Your task to perform on an android device: turn on the 24-hour format for clock Image 0: 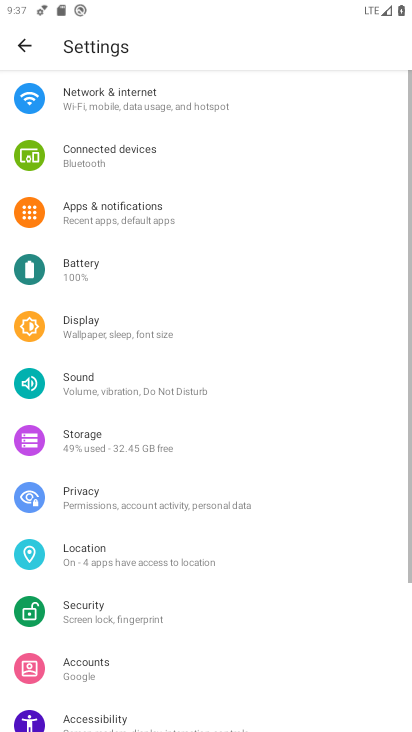
Step 0: press home button
Your task to perform on an android device: turn on the 24-hour format for clock Image 1: 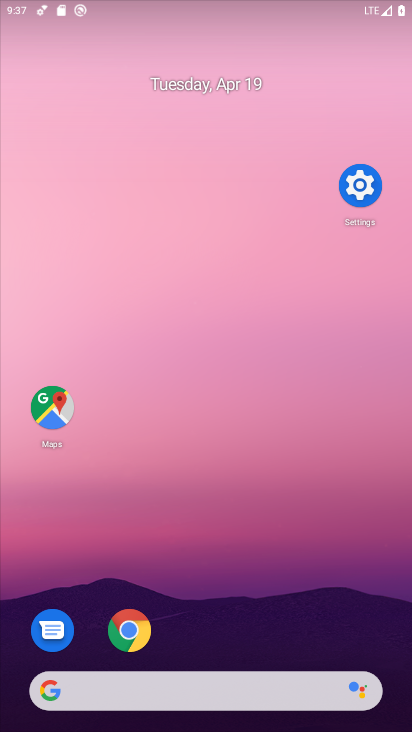
Step 1: drag from (253, 673) to (270, 66)
Your task to perform on an android device: turn on the 24-hour format for clock Image 2: 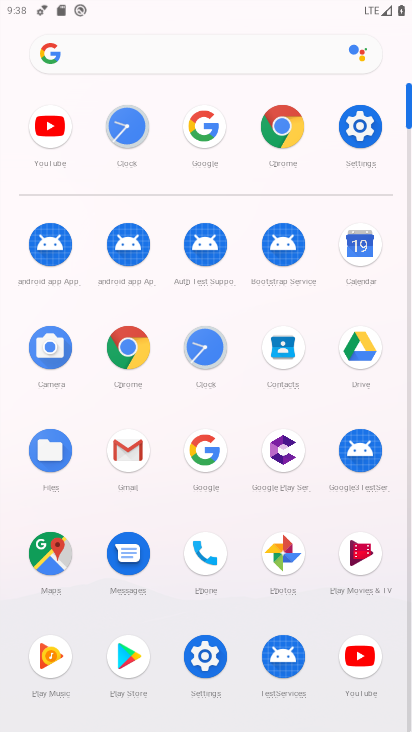
Step 2: click (364, 133)
Your task to perform on an android device: turn on the 24-hour format for clock Image 3: 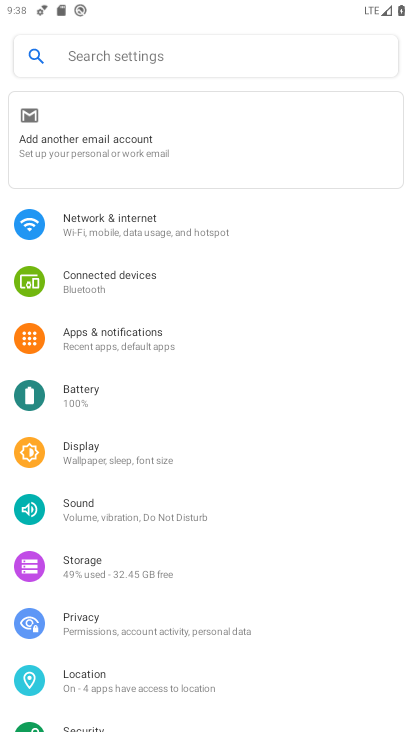
Step 3: press home button
Your task to perform on an android device: turn on the 24-hour format for clock Image 4: 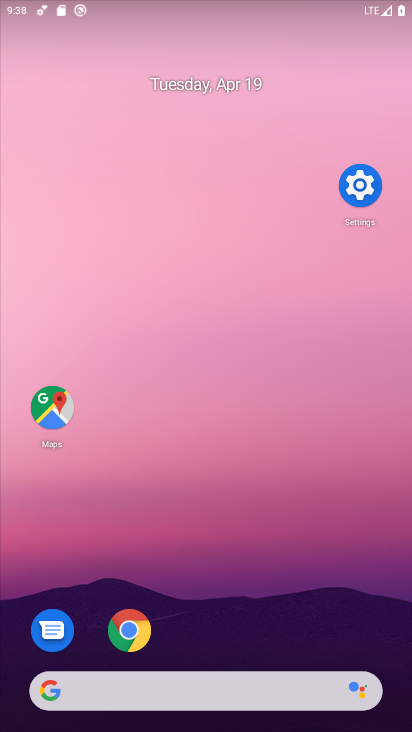
Step 4: drag from (217, 636) to (281, 80)
Your task to perform on an android device: turn on the 24-hour format for clock Image 5: 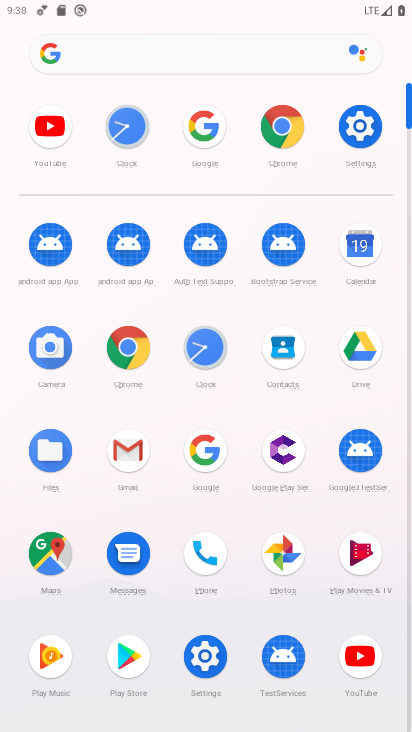
Step 5: click (209, 356)
Your task to perform on an android device: turn on the 24-hour format for clock Image 6: 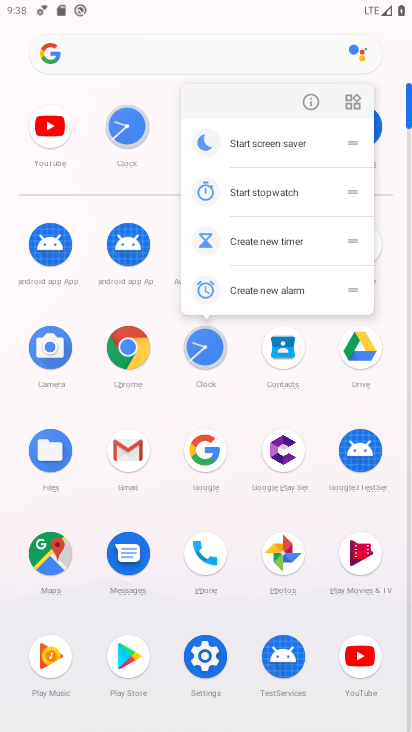
Step 6: click (209, 356)
Your task to perform on an android device: turn on the 24-hour format for clock Image 7: 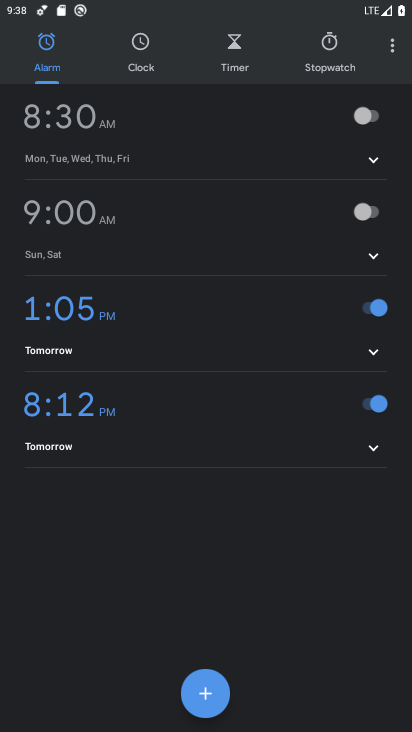
Step 7: click (397, 47)
Your task to perform on an android device: turn on the 24-hour format for clock Image 8: 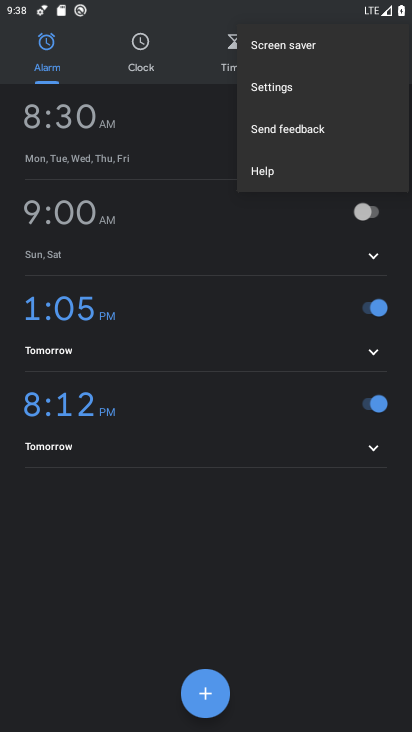
Step 8: click (287, 87)
Your task to perform on an android device: turn on the 24-hour format for clock Image 9: 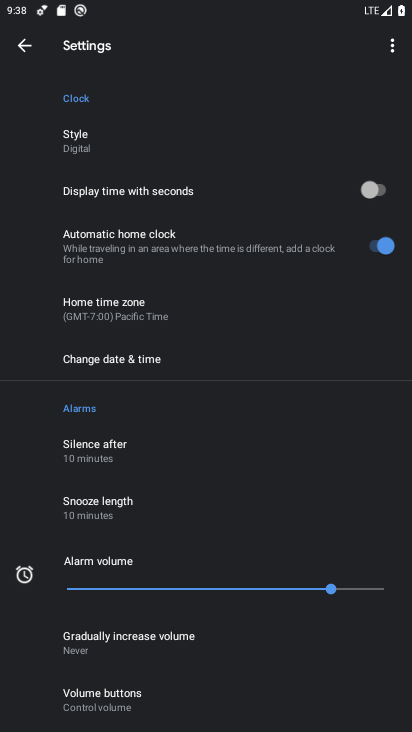
Step 9: click (160, 355)
Your task to perform on an android device: turn on the 24-hour format for clock Image 10: 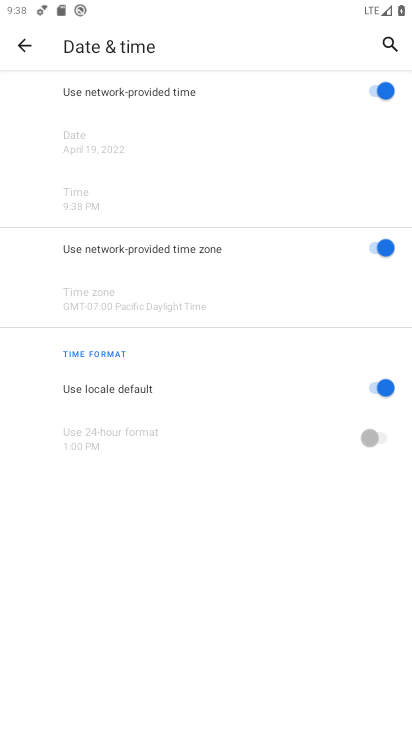
Step 10: task complete